Your task to perform on an android device: check data usage Image 0: 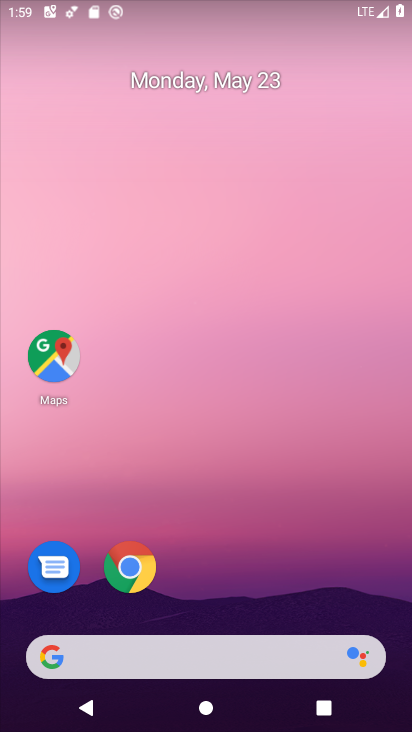
Step 0: drag from (207, 593) to (253, 267)
Your task to perform on an android device: check data usage Image 1: 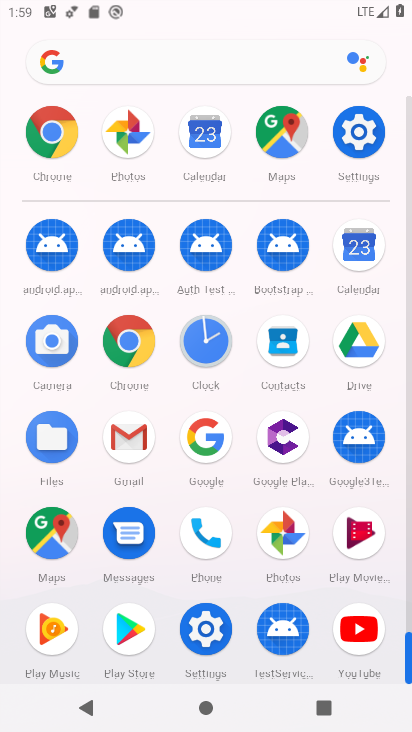
Step 1: click (366, 139)
Your task to perform on an android device: check data usage Image 2: 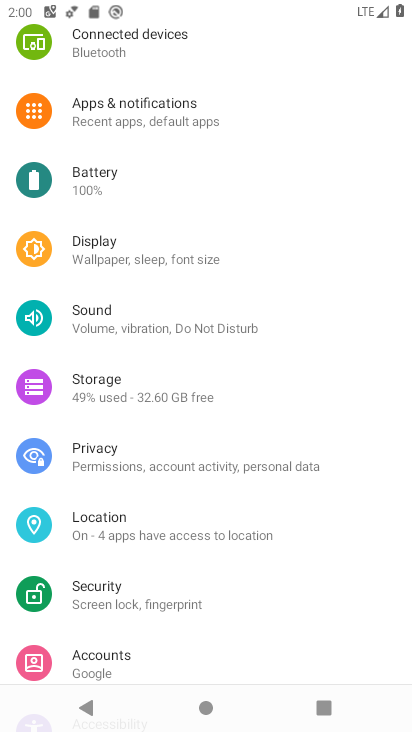
Step 2: drag from (196, 201) to (214, 533)
Your task to perform on an android device: check data usage Image 3: 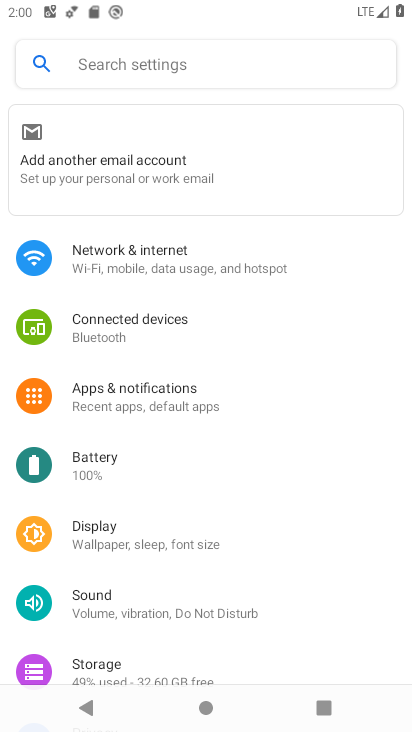
Step 3: drag from (196, 570) to (211, 415)
Your task to perform on an android device: check data usage Image 4: 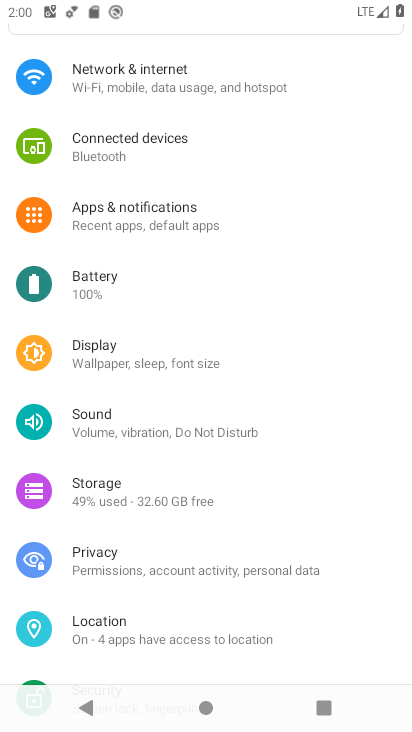
Step 4: drag from (188, 337) to (193, 597)
Your task to perform on an android device: check data usage Image 5: 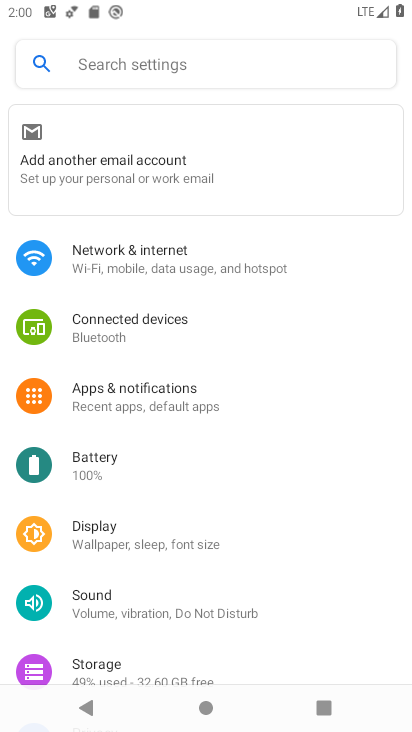
Step 5: click (185, 274)
Your task to perform on an android device: check data usage Image 6: 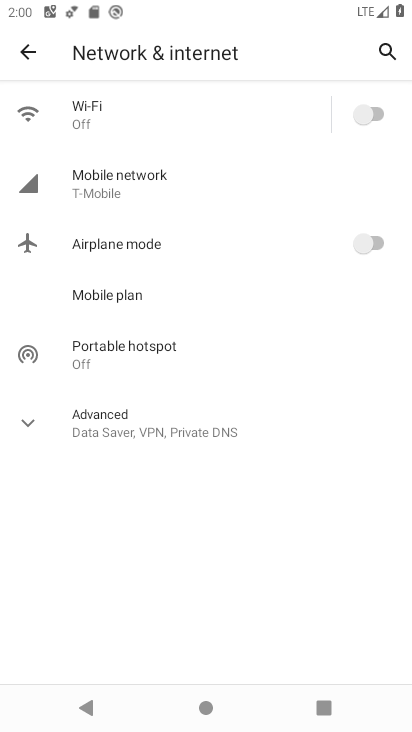
Step 6: click (161, 189)
Your task to perform on an android device: check data usage Image 7: 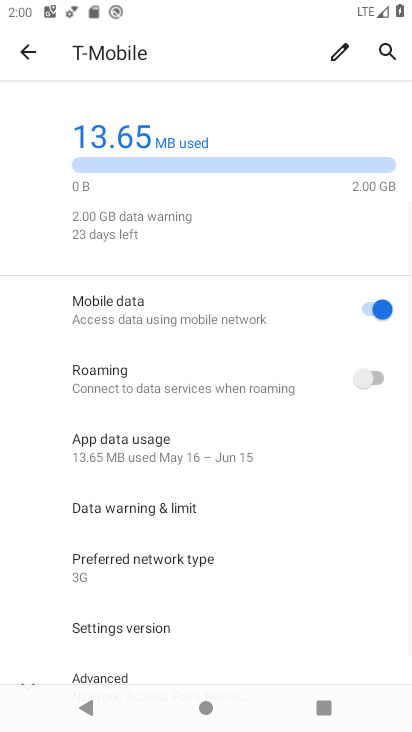
Step 7: click (169, 444)
Your task to perform on an android device: check data usage Image 8: 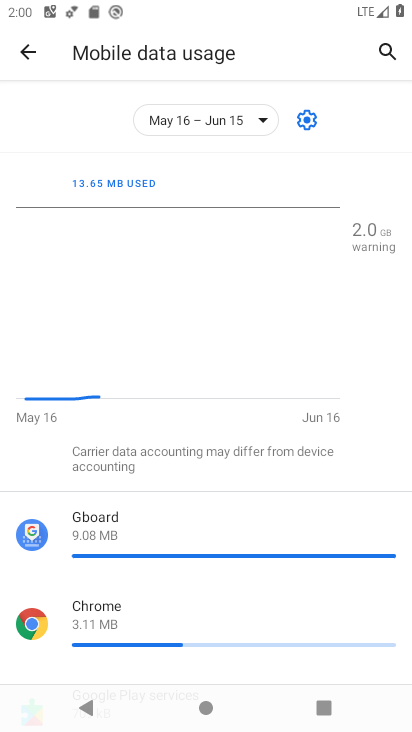
Step 8: task complete